Your task to perform on an android device: open a bookmark in the chrome app Image 0: 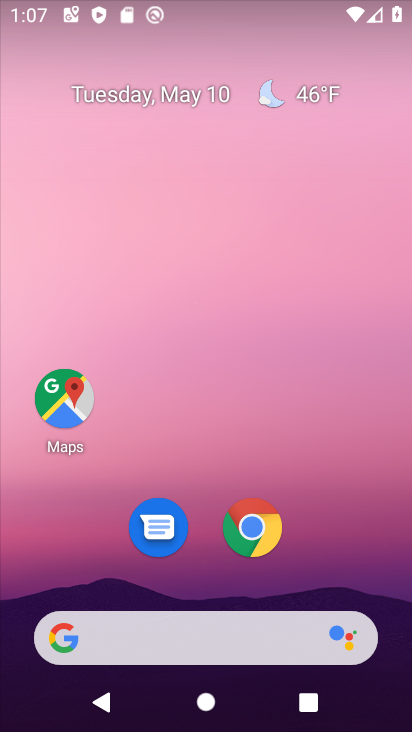
Step 0: click (254, 527)
Your task to perform on an android device: open a bookmark in the chrome app Image 1: 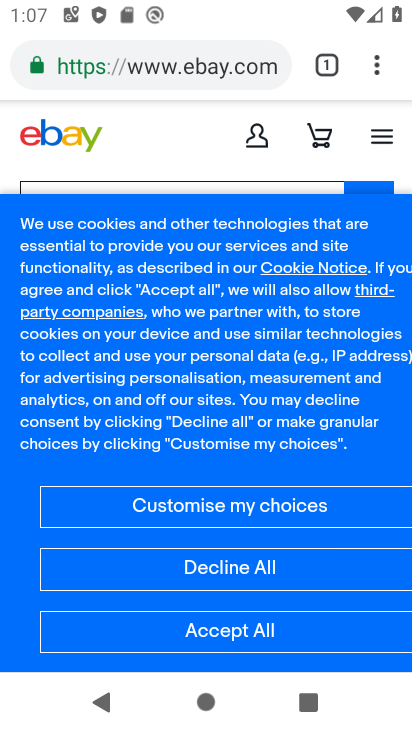
Step 1: task complete